Your task to perform on an android device: allow cookies in the chrome app Image 0: 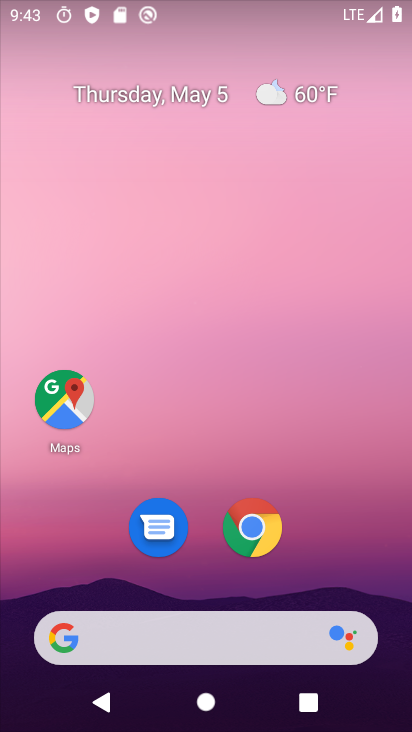
Step 0: click (233, 524)
Your task to perform on an android device: allow cookies in the chrome app Image 1: 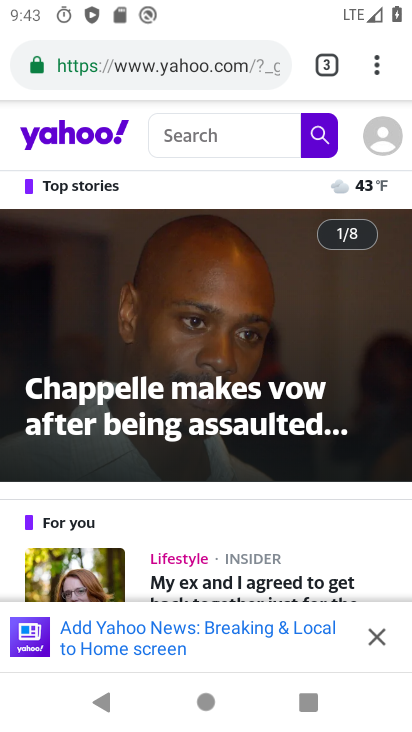
Step 1: click (381, 66)
Your task to perform on an android device: allow cookies in the chrome app Image 2: 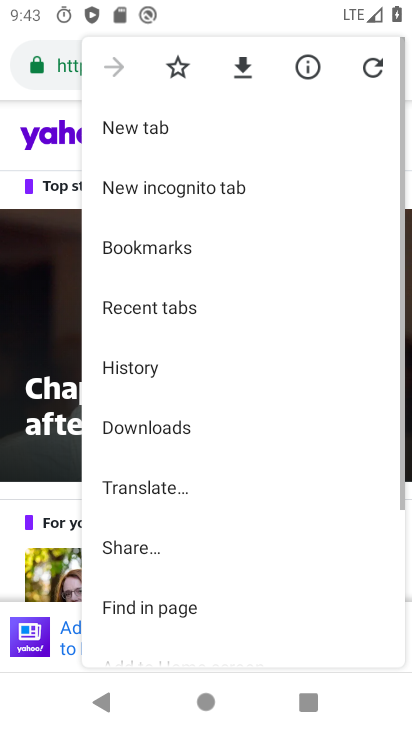
Step 2: drag from (239, 539) to (308, 151)
Your task to perform on an android device: allow cookies in the chrome app Image 3: 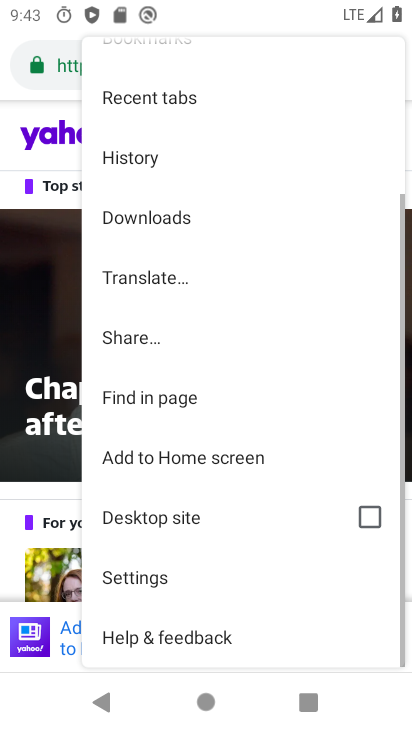
Step 3: click (172, 568)
Your task to perform on an android device: allow cookies in the chrome app Image 4: 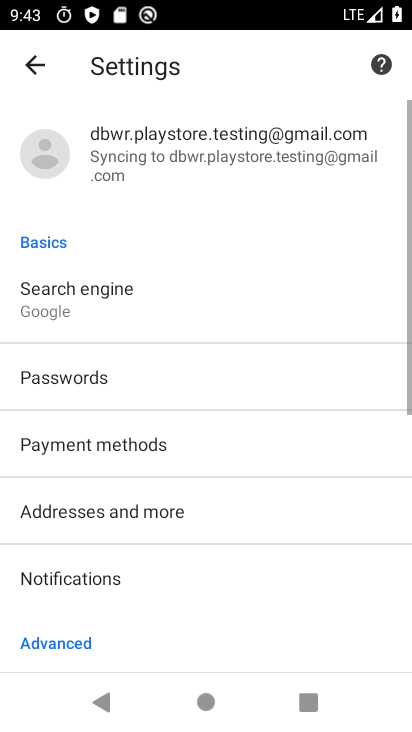
Step 4: drag from (174, 559) to (239, 180)
Your task to perform on an android device: allow cookies in the chrome app Image 5: 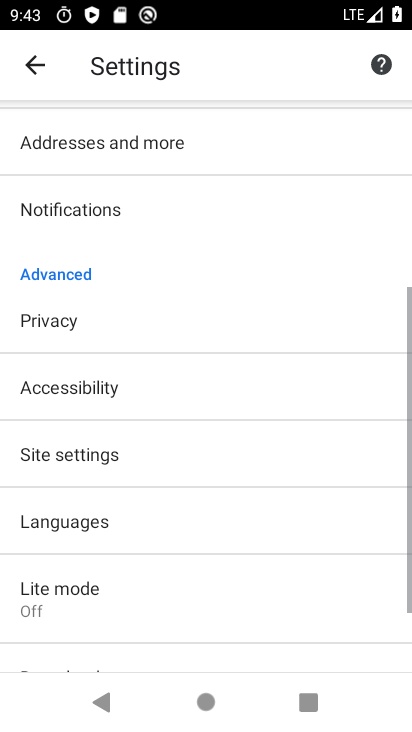
Step 5: click (171, 480)
Your task to perform on an android device: allow cookies in the chrome app Image 6: 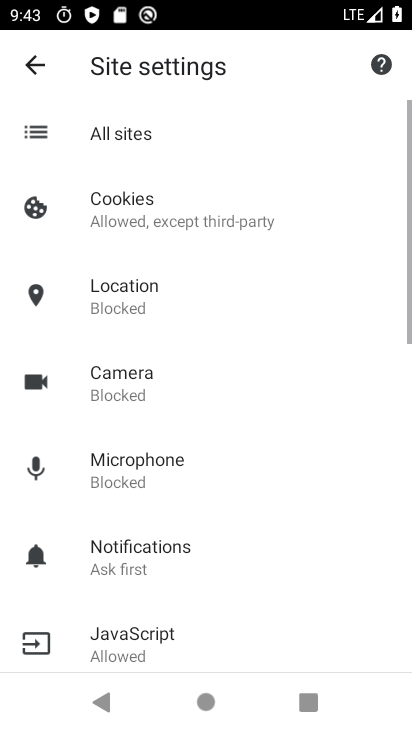
Step 6: click (205, 221)
Your task to perform on an android device: allow cookies in the chrome app Image 7: 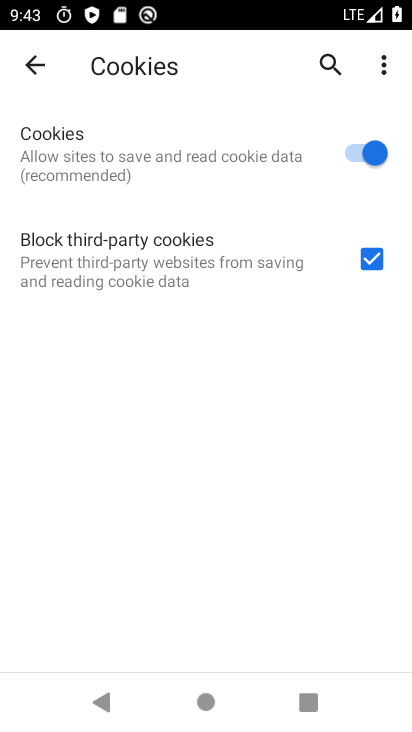
Step 7: task complete